Your task to perform on an android device: Go to accessibility settings Image 0: 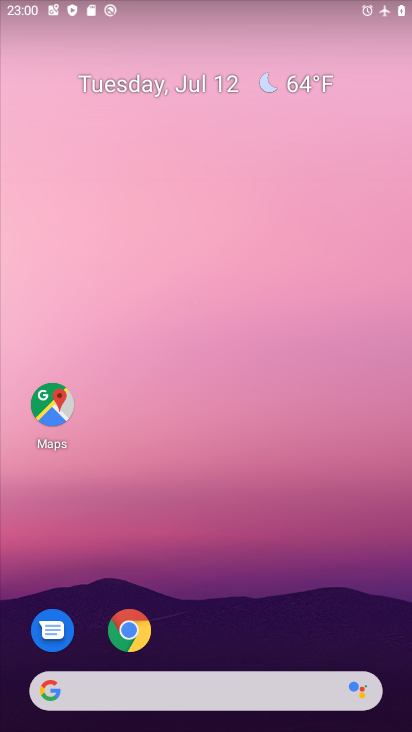
Step 0: drag from (212, 663) to (159, 140)
Your task to perform on an android device: Go to accessibility settings Image 1: 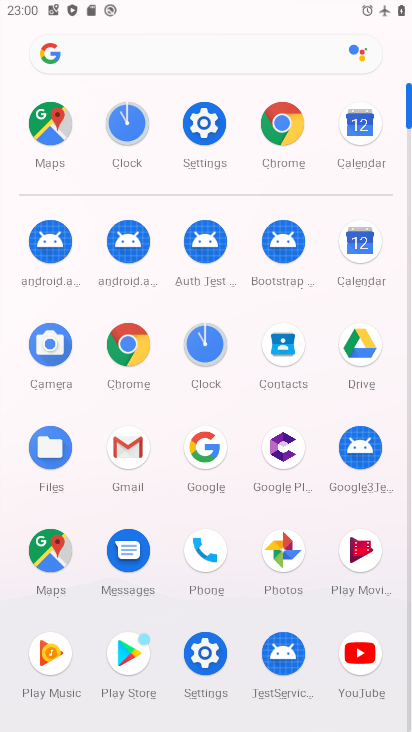
Step 1: click (212, 645)
Your task to perform on an android device: Go to accessibility settings Image 2: 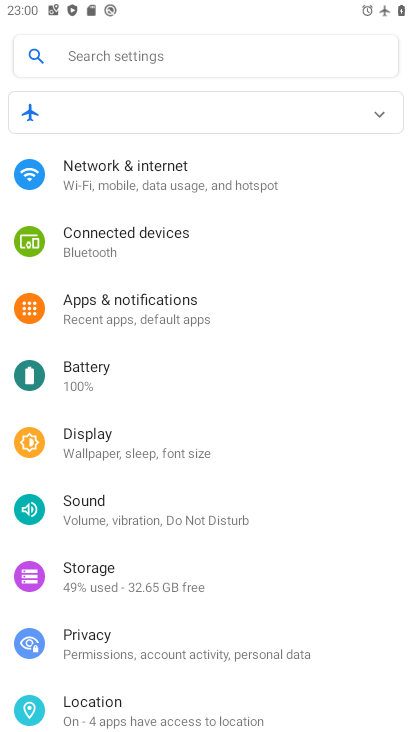
Step 2: drag from (178, 628) to (143, 255)
Your task to perform on an android device: Go to accessibility settings Image 3: 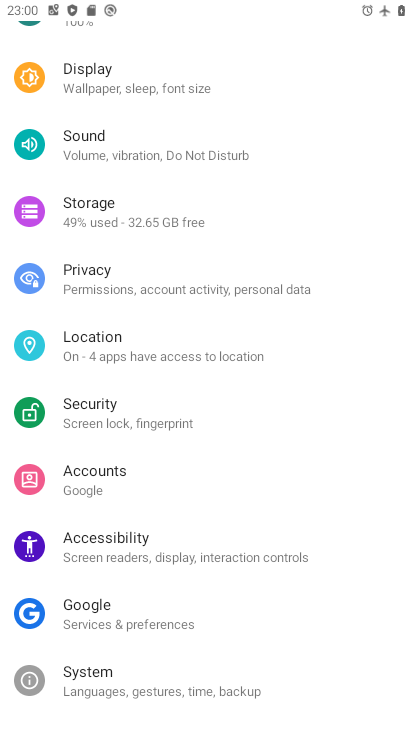
Step 3: click (141, 541)
Your task to perform on an android device: Go to accessibility settings Image 4: 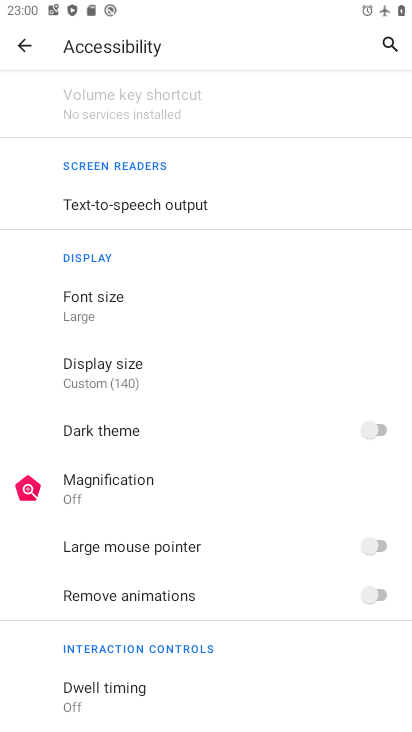
Step 4: task complete